Your task to perform on an android device: Open Google Chrome Image 0: 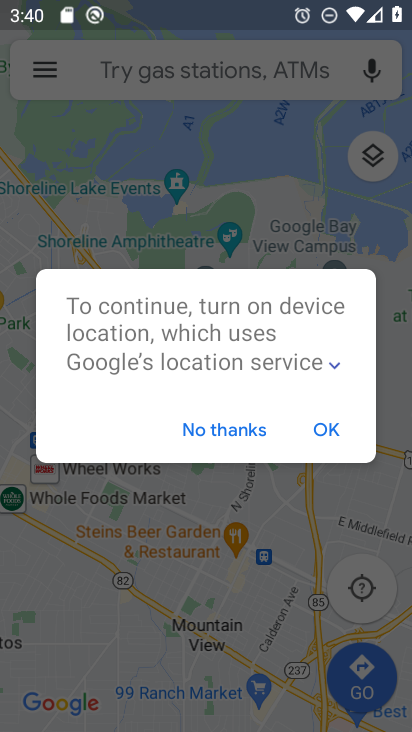
Step 0: click (327, 427)
Your task to perform on an android device: Open Google Chrome Image 1: 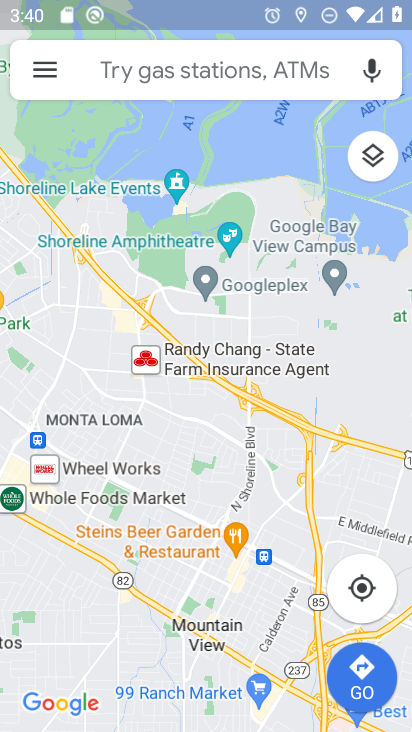
Step 1: press back button
Your task to perform on an android device: Open Google Chrome Image 2: 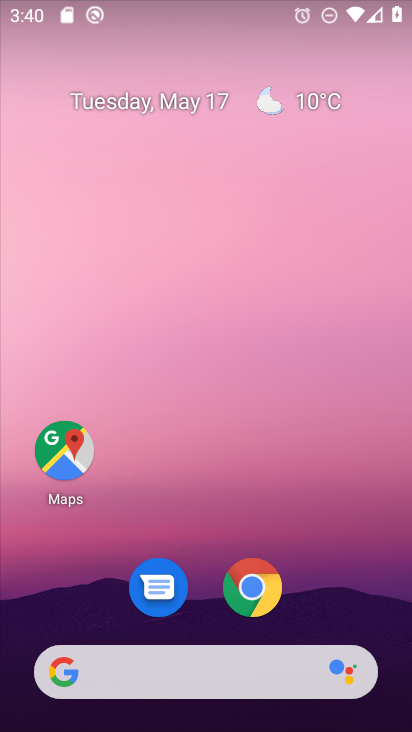
Step 2: press back button
Your task to perform on an android device: Open Google Chrome Image 3: 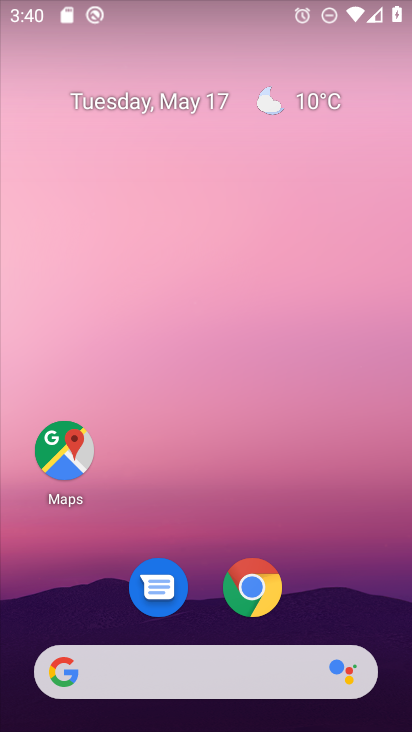
Step 3: click (249, 578)
Your task to perform on an android device: Open Google Chrome Image 4: 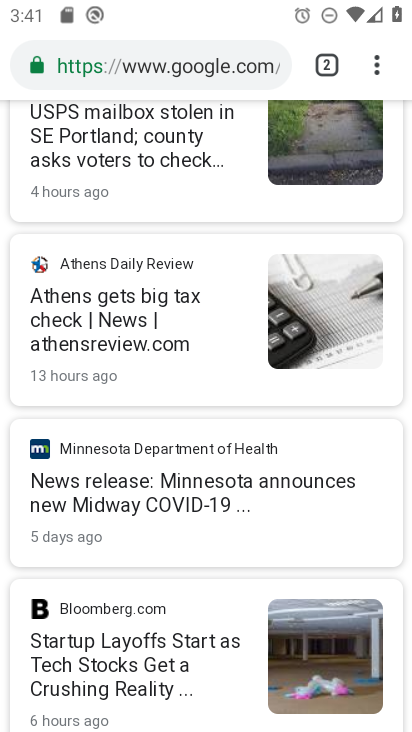
Step 4: task complete